Your task to perform on an android device: Open Google Maps Image 0: 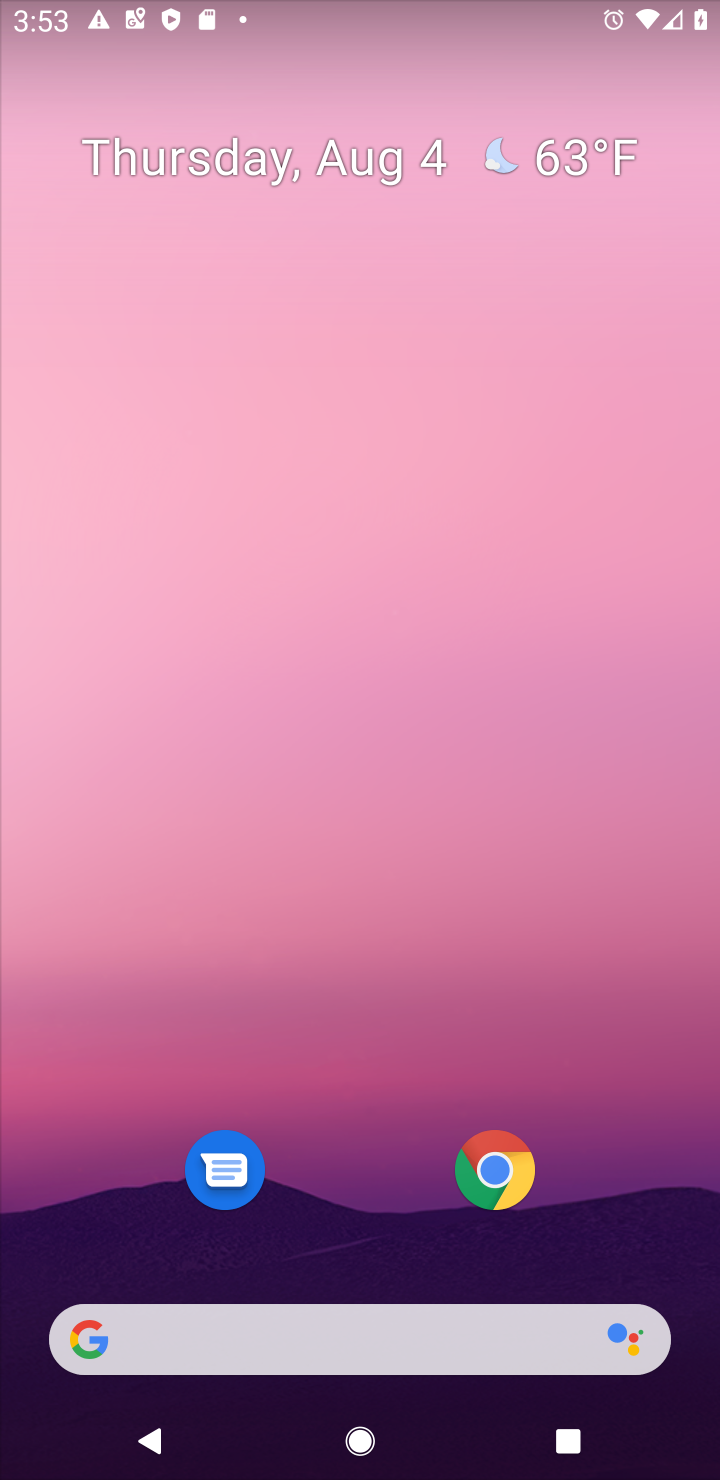
Step 0: drag from (564, 747) to (553, 289)
Your task to perform on an android device: Open Google Maps Image 1: 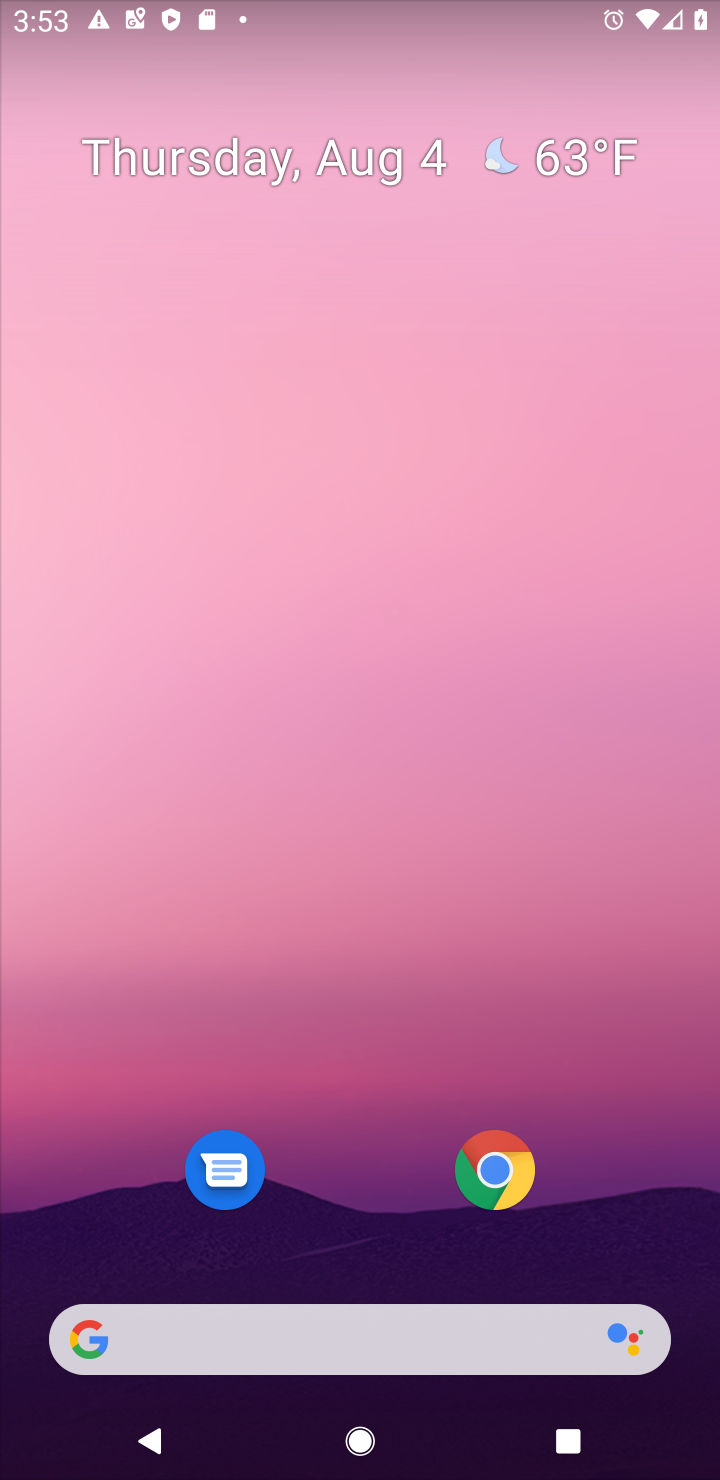
Step 1: drag from (614, 1255) to (468, 54)
Your task to perform on an android device: Open Google Maps Image 2: 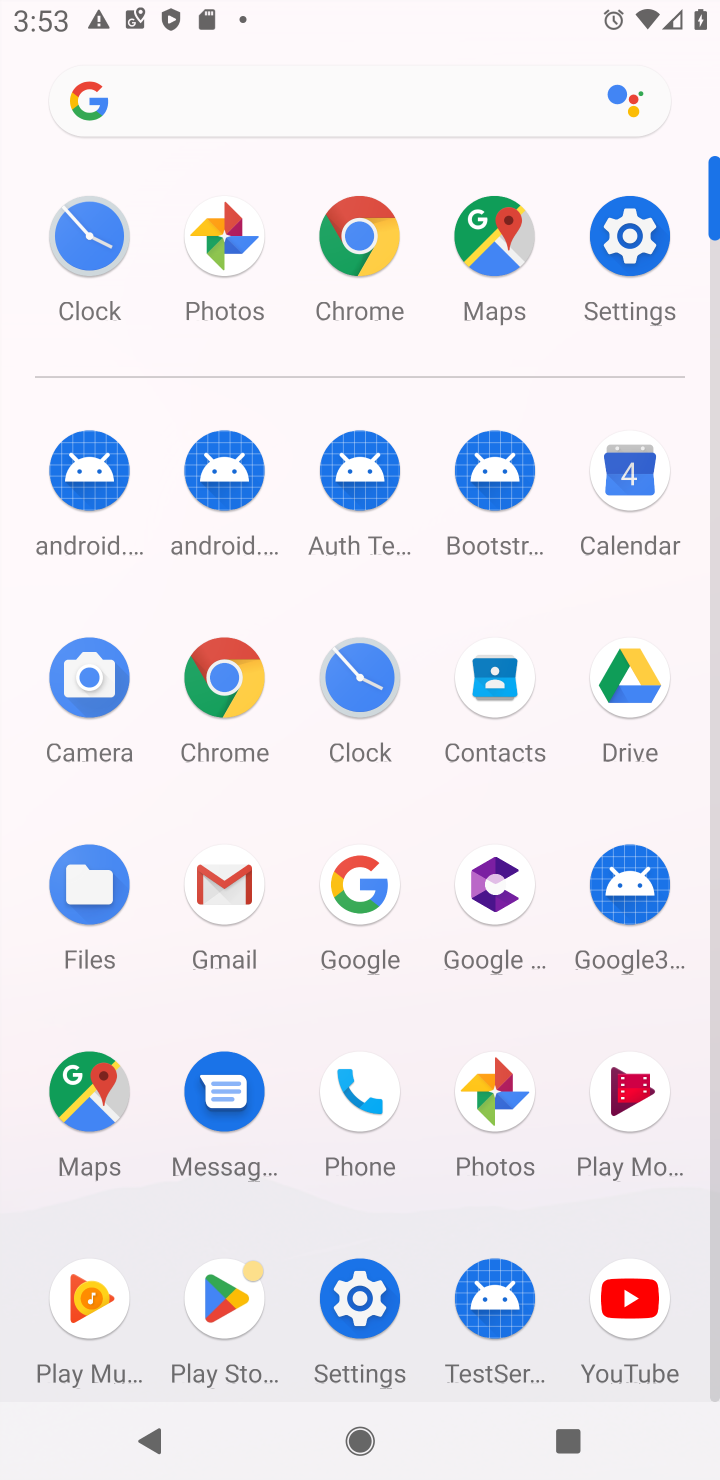
Step 2: click (89, 1088)
Your task to perform on an android device: Open Google Maps Image 3: 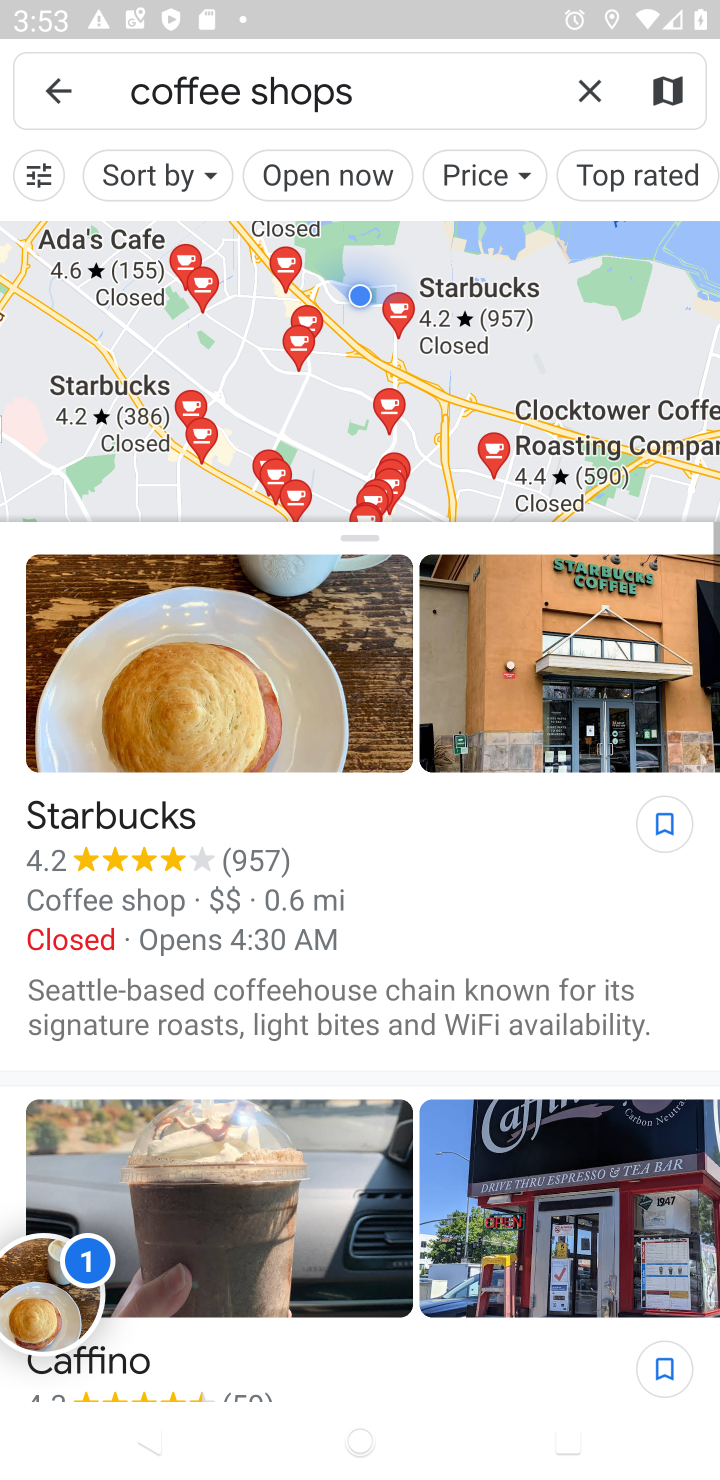
Step 3: click (596, 92)
Your task to perform on an android device: Open Google Maps Image 4: 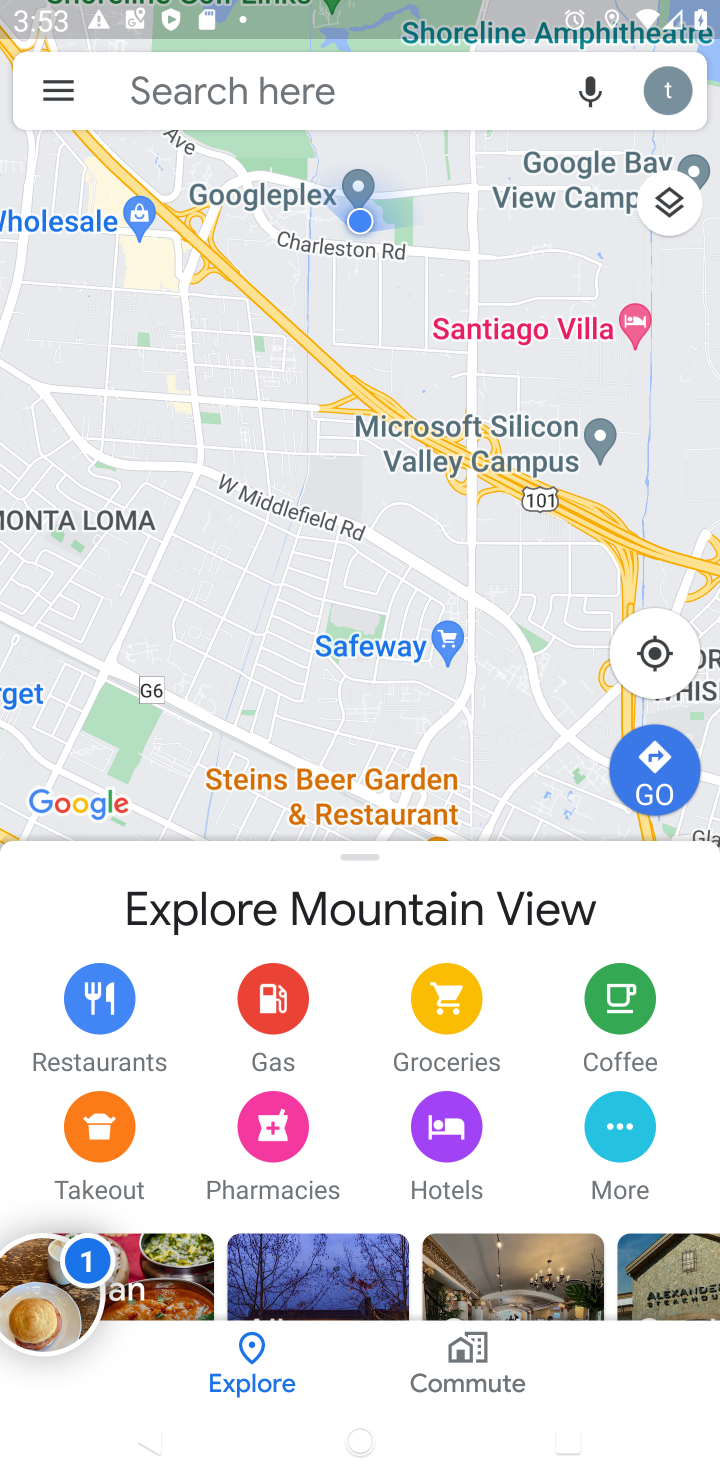
Step 4: task complete